Your task to perform on an android device: change the clock display to analog Image 0: 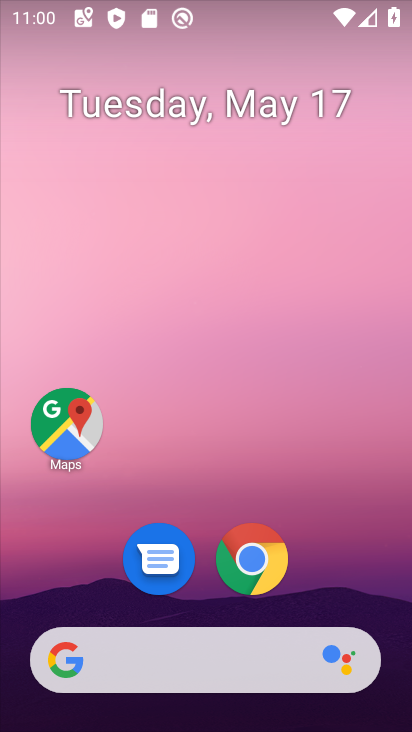
Step 0: drag from (250, 645) to (201, 202)
Your task to perform on an android device: change the clock display to analog Image 1: 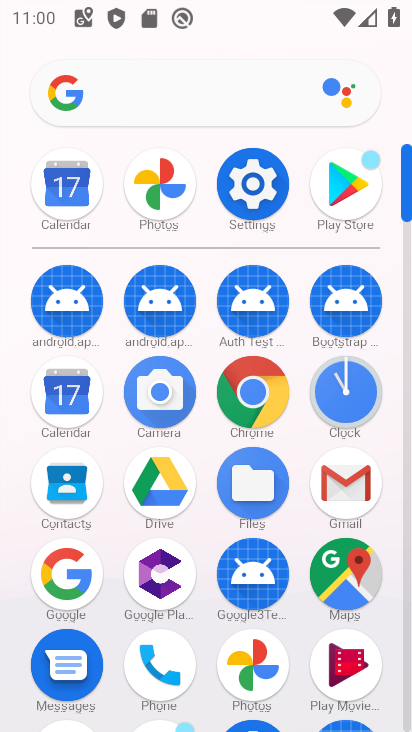
Step 1: click (331, 402)
Your task to perform on an android device: change the clock display to analog Image 2: 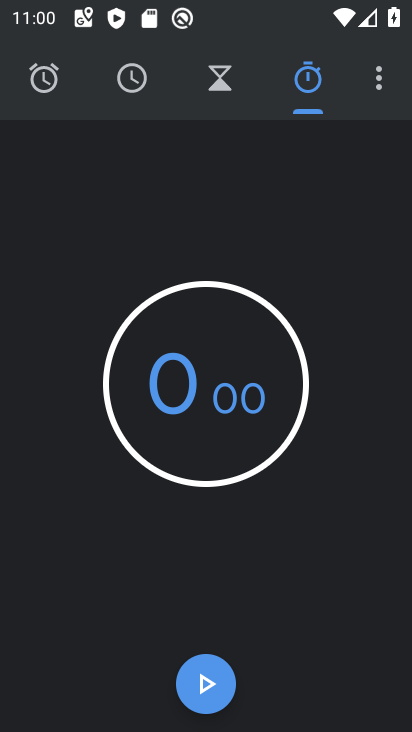
Step 2: click (375, 87)
Your task to perform on an android device: change the clock display to analog Image 3: 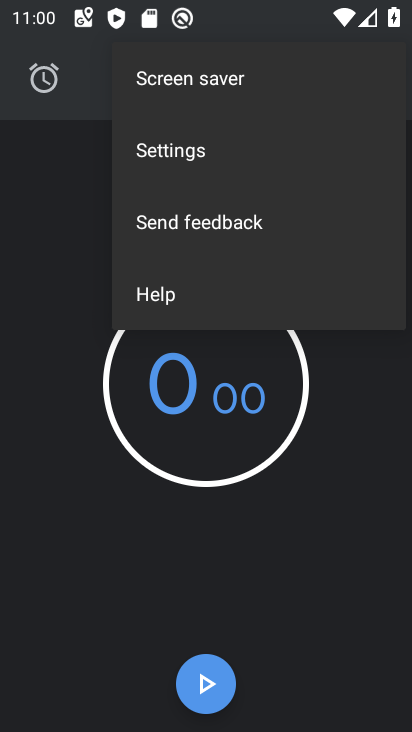
Step 3: click (228, 144)
Your task to perform on an android device: change the clock display to analog Image 4: 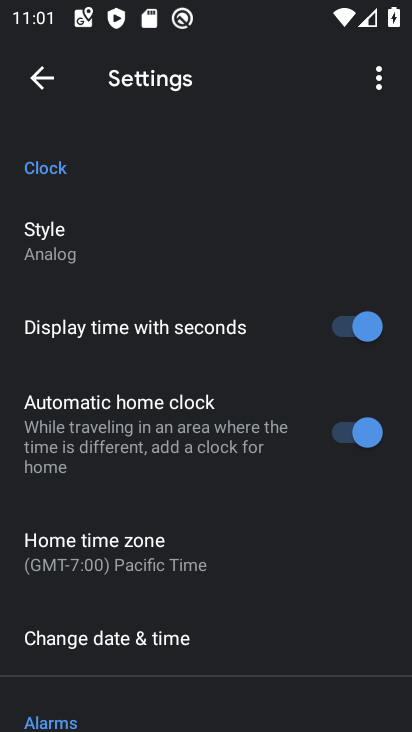
Step 4: task complete